Your task to perform on an android device: turn vacation reply on in the gmail app Image 0: 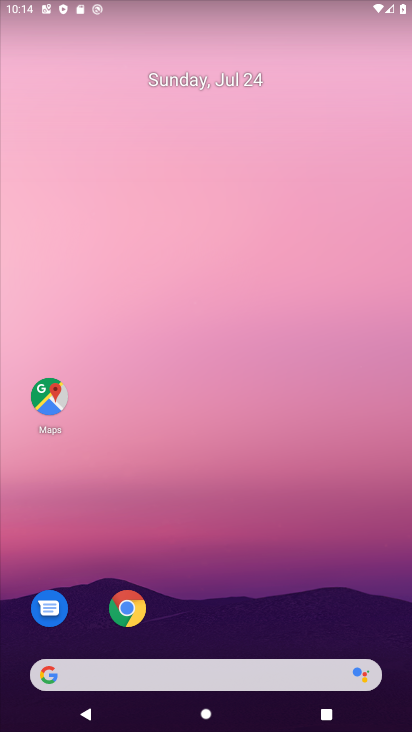
Step 0: drag from (253, 530) to (234, 152)
Your task to perform on an android device: turn vacation reply on in the gmail app Image 1: 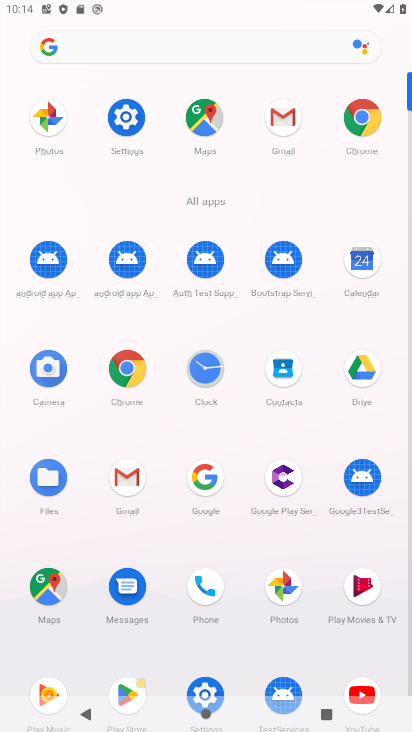
Step 1: click (279, 113)
Your task to perform on an android device: turn vacation reply on in the gmail app Image 2: 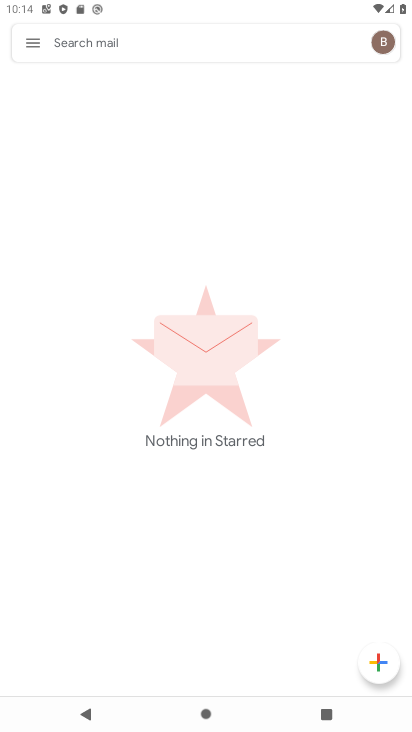
Step 2: click (28, 38)
Your task to perform on an android device: turn vacation reply on in the gmail app Image 3: 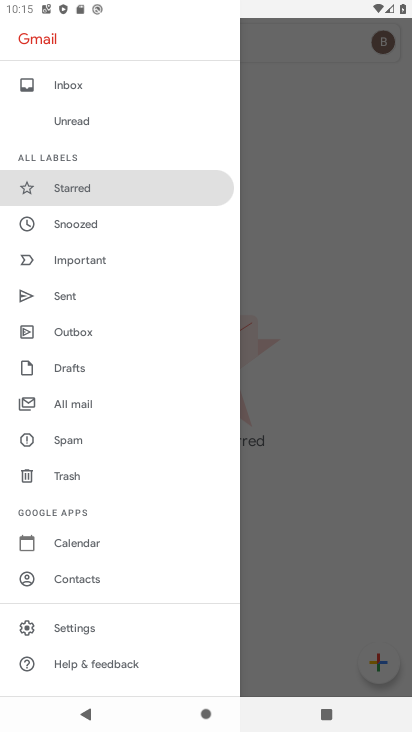
Step 3: click (147, 626)
Your task to perform on an android device: turn vacation reply on in the gmail app Image 4: 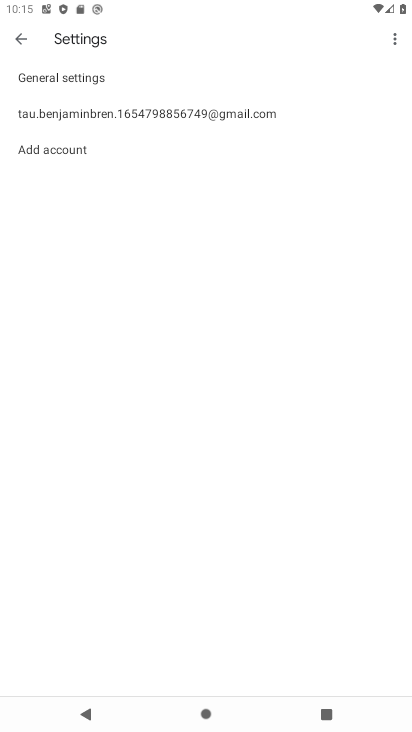
Step 4: click (209, 101)
Your task to perform on an android device: turn vacation reply on in the gmail app Image 5: 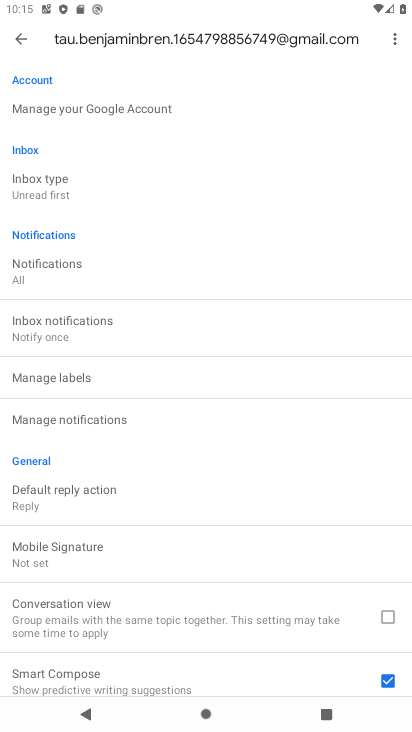
Step 5: drag from (125, 573) to (125, 9)
Your task to perform on an android device: turn vacation reply on in the gmail app Image 6: 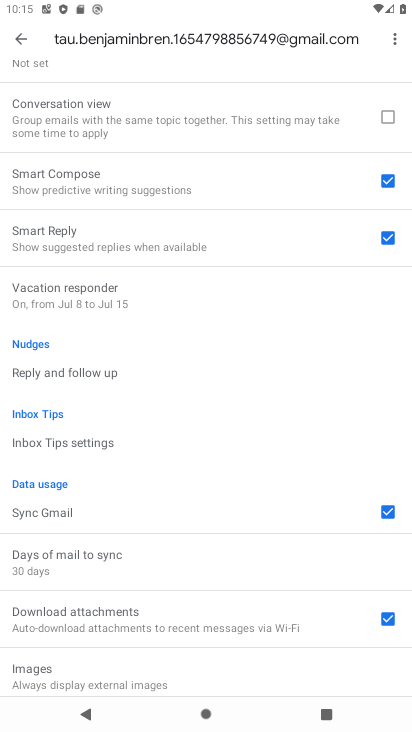
Step 6: click (138, 284)
Your task to perform on an android device: turn vacation reply on in the gmail app Image 7: 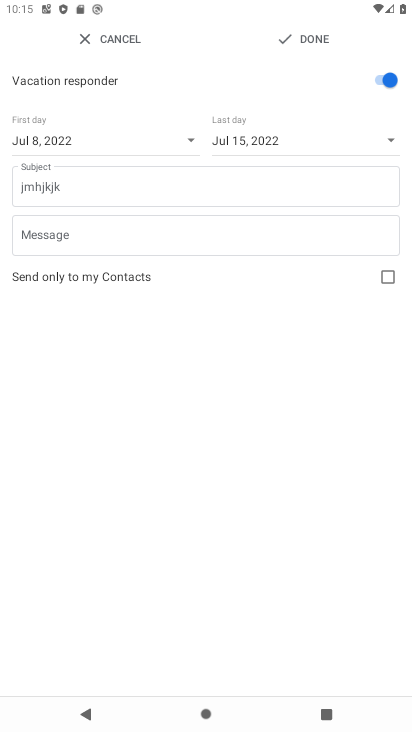
Step 7: click (291, 51)
Your task to perform on an android device: turn vacation reply on in the gmail app Image 8: 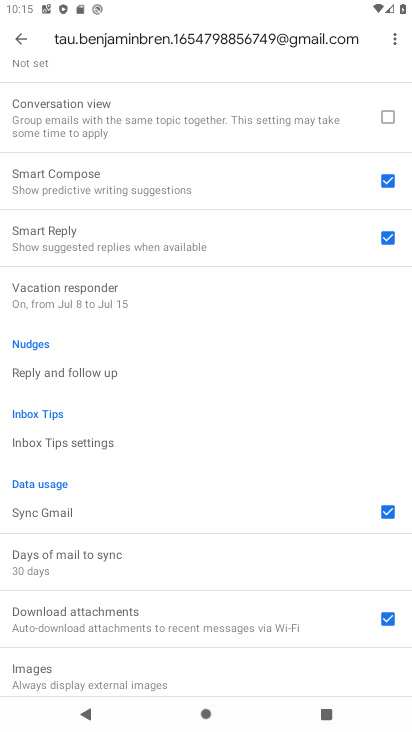
Step 8: task complete